Your task to perform on an android device: turn on bluetooth scan Image 0: 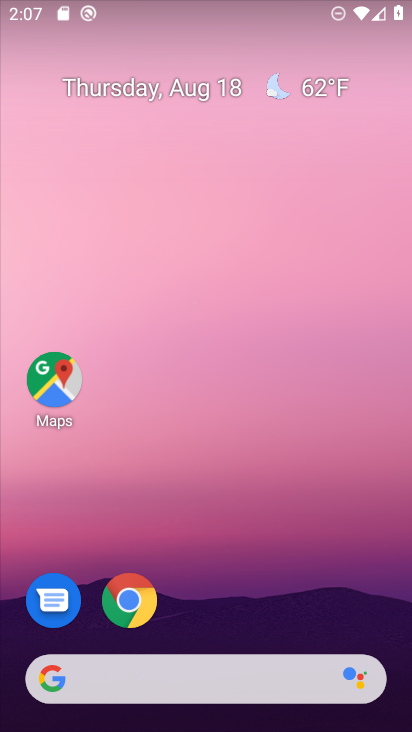
Step 0: drag from (236, 599) to (154, 111)
Your task to perform on an android device: turn on bluetooth scan Image 1: 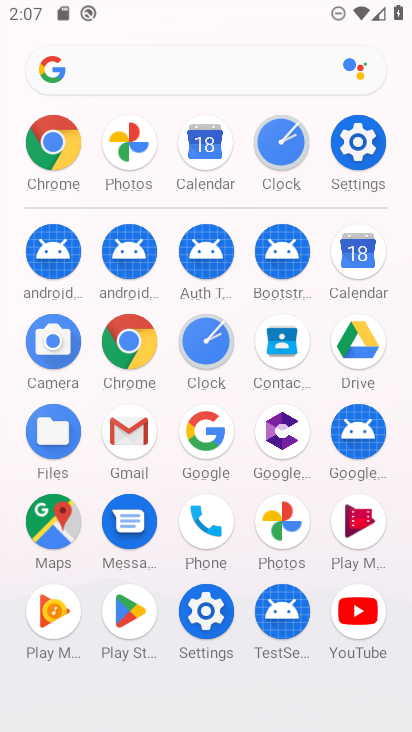
Step 1: click (365, 147)
Your task to perform on an android device: turn on bluetooth scan Image 2: 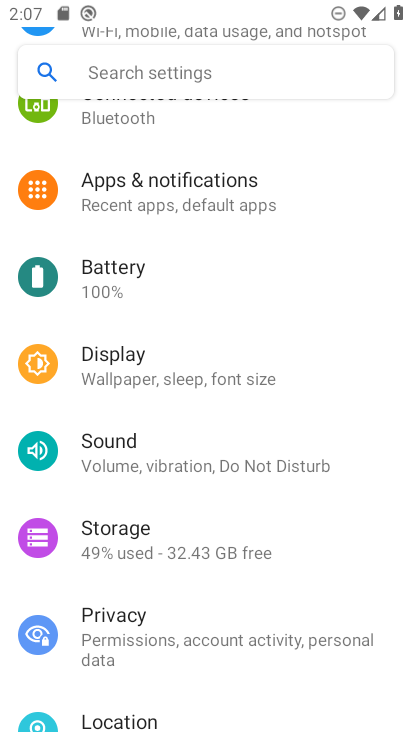
Step 2: click (136, 715)
Your task to perform on an android device: turn on bluetooth scan Image 3: 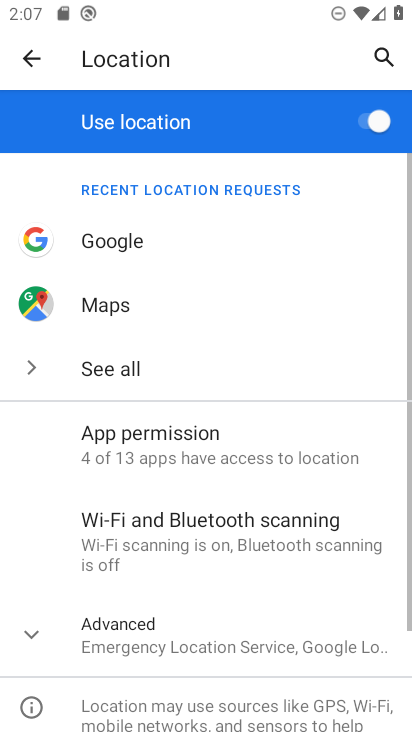
Step 3: click (143, 513)
Your task to perform on an android device: turn on bluetooth scan Image 4: 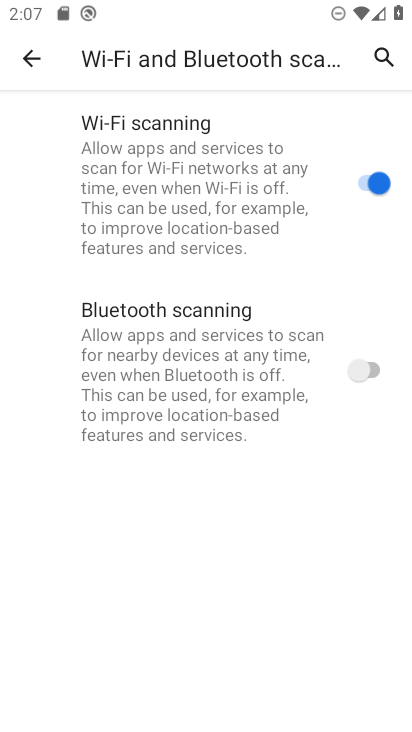
Step 4: click (360, 364)
Your task to perform on an android device: turn on bluetooth scan Image 5: 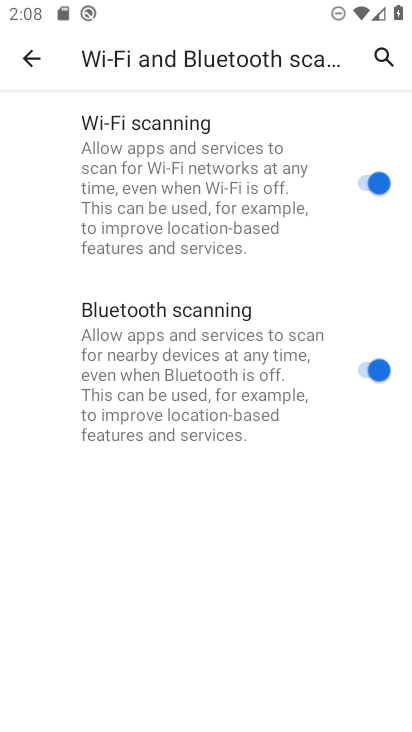
Step 5: task complete